Your task to perform on an android device: make emails show in primary in the gmail app Image 0: 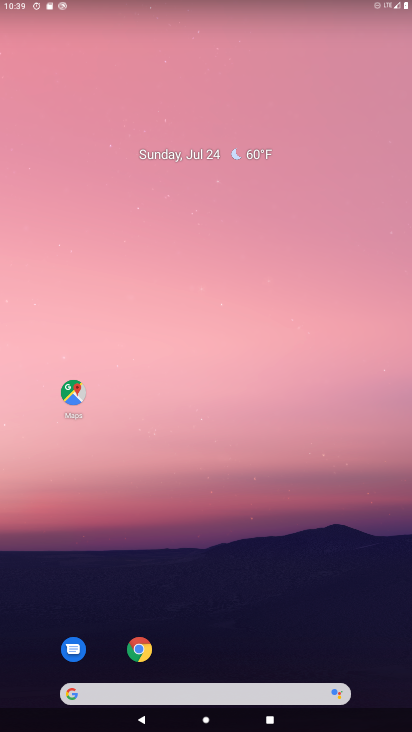
Step 0: drag from (321, 659) to (289, 379)
Your task to perform on an android device: make emails show in primary in the gmail app Image 1: 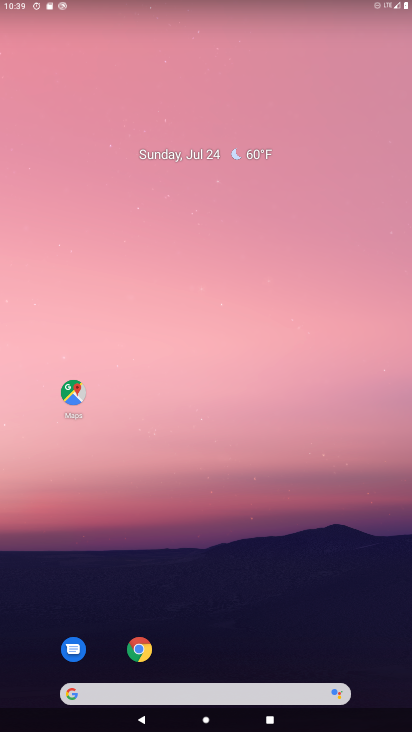
Step 1: drag from (331, 561) to (275, 79)
Your task to perform on an android device: make emails show in primary in the gmail app Image 2: 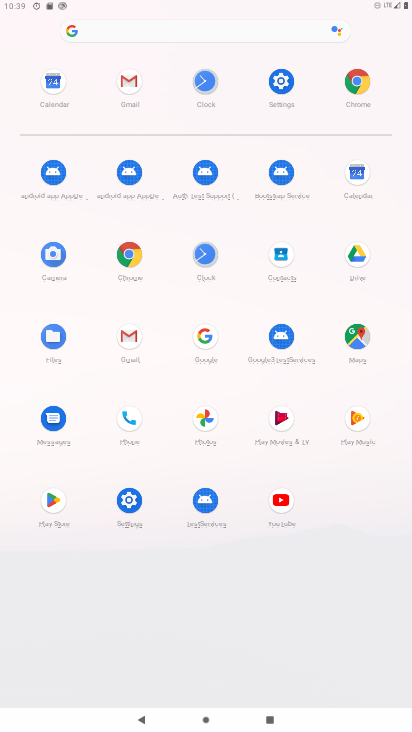
Step 2: click (127, 88)
Your task to perform on an android device: make emails show in primary in the gmail app Image 3: 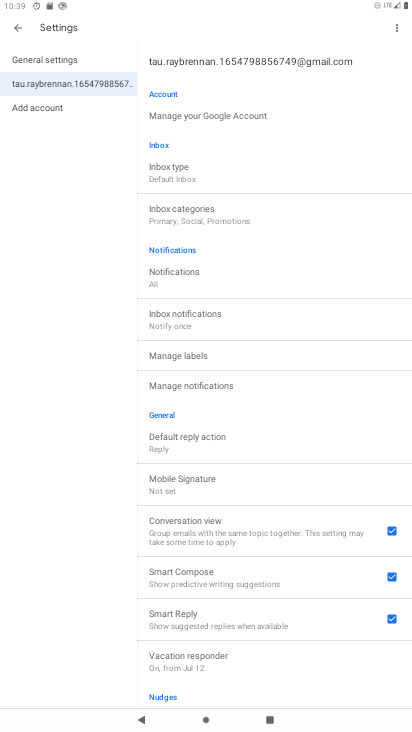
Step 3: click (72, 82)
Your task to perform on an android device: make emails show in primary in the gmail app Image 4: 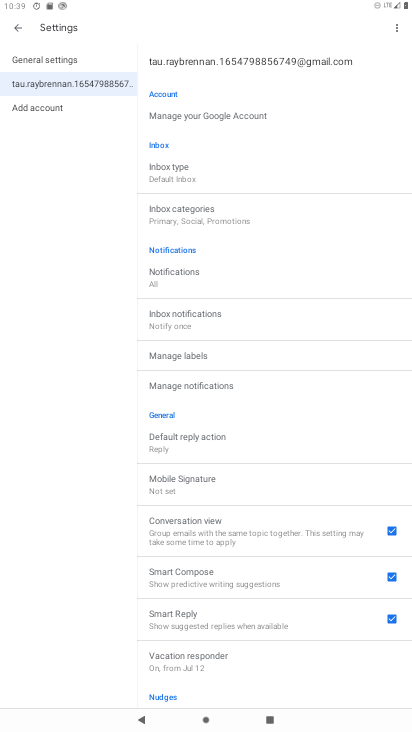
Step 4: click (226, 224)
Your task to perform on an android device: make emails show in primary in the gmail app Image 5: 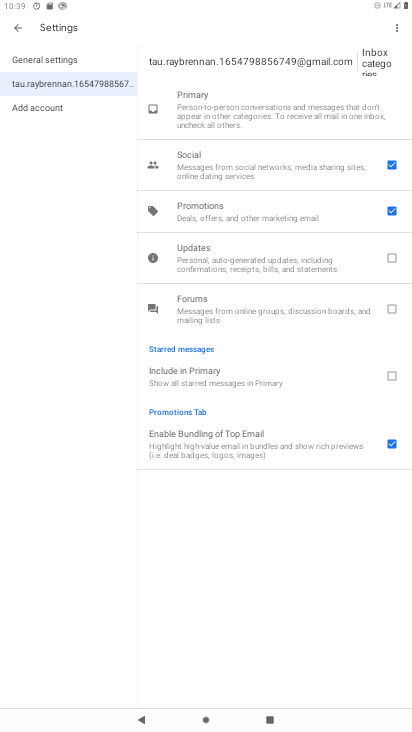
Step 5: task complete